Your task to perform on an android device: toggle wifi Image 0: 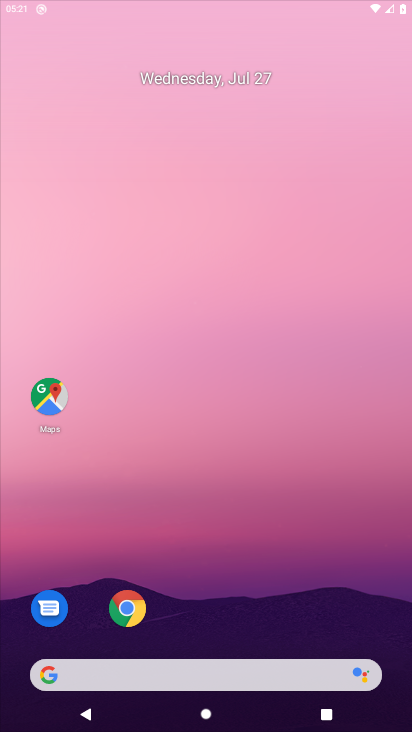
Step 0: press home button
Your task to perform on an android device: toggle wifi Image 1: 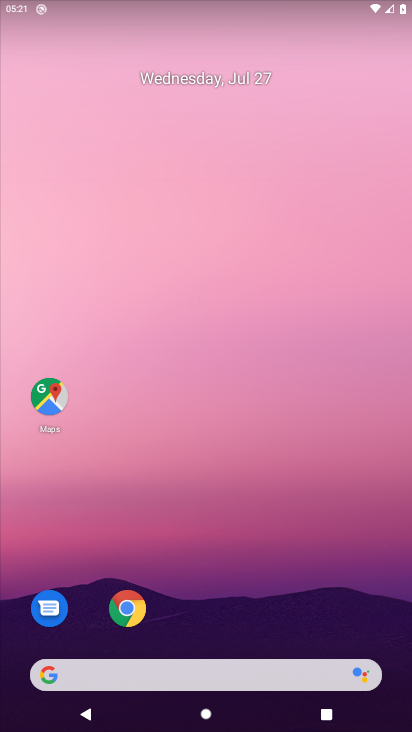
Step 1: drag from (205, 3) to (353, 687)
Your task to perform on an android device: toggle wifi Image 2: 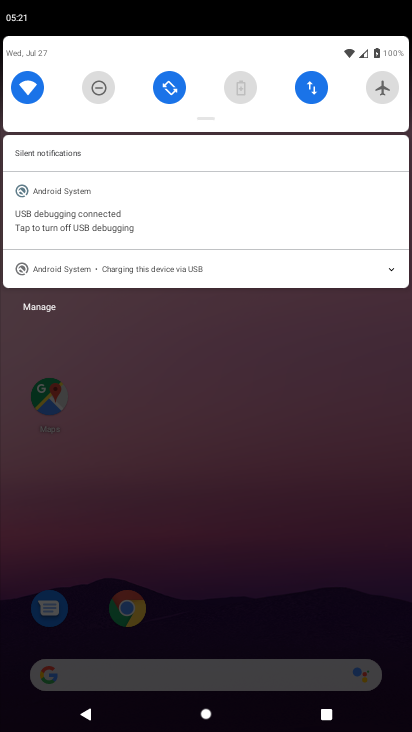
Step 2: click (31, 87)
Your task to perform on an android device: toggle wifi Image 3: 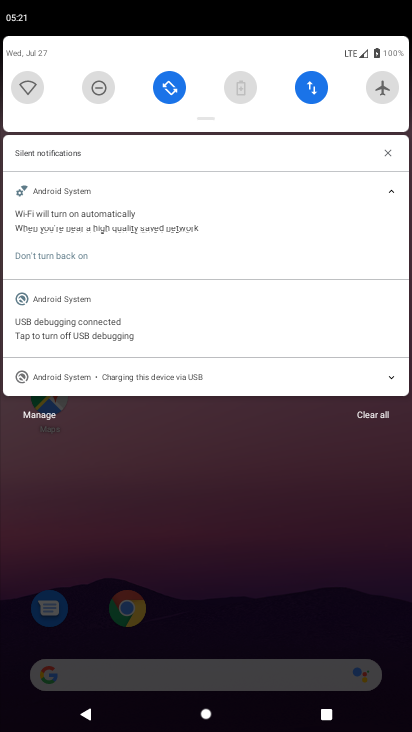
Step 3: task complete